Your task to perform on an android device: turn on improve location accuracy Image 0: 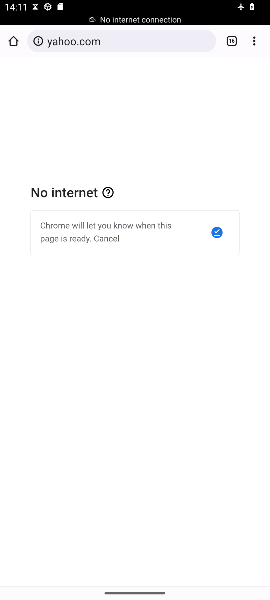
Step 0: press home button
Your task to perform on an android device: turn on improve location accuracy Image 1: 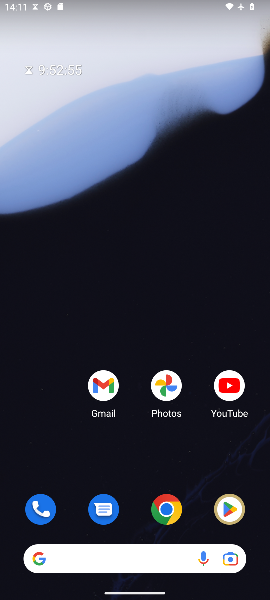
Step 1: drag from (156, 460) to (249, 1)
Your task to perform on an android device: turn on improve location accuracy Image 2: 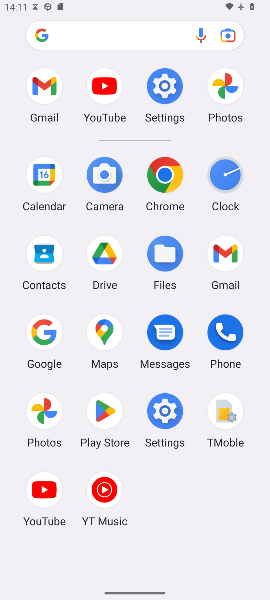
Step 2: click (168, 88)
Your task to perform on an android device: turn on improve location accuracy Image 3: 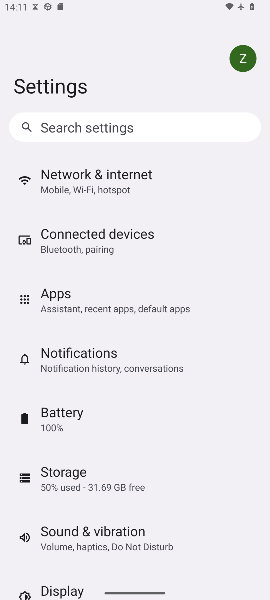
Step 3: drag from (209, 459) to (205, 154)
Your task to perform on an android device: turn on improve location accuracy Image 4: 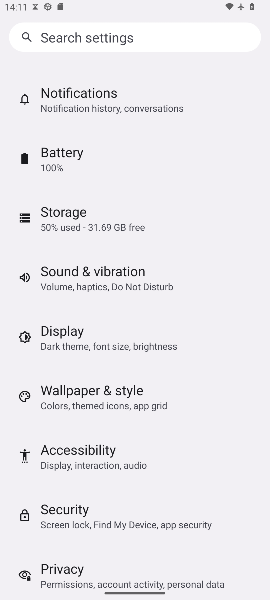
Step 4: drag from (254, 483) to (239, 136)
Your task to perform on an android device: turn on improve location accuracy Image 5: 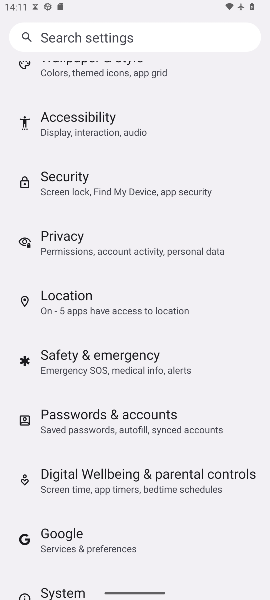
Step 5: click (62, 298)
Your task to perform on an android device: turn on improve location accuracy Image 6: 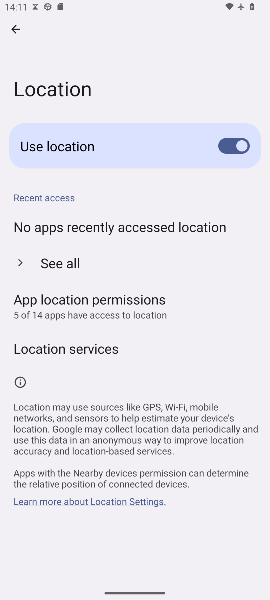
Step 6: click (66, 350)
Your task to perform on an android device: turn on improve location accuracy Image 7: 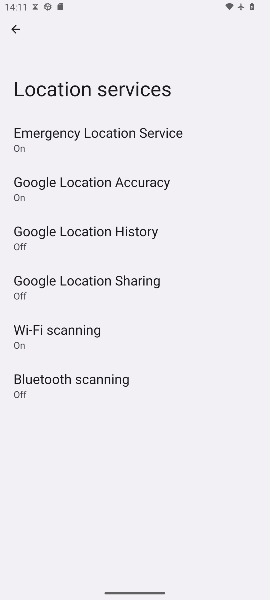
Step 7: click (110, 185)
Your task to perform on an android device: turn on improve location accuracy Image 8: 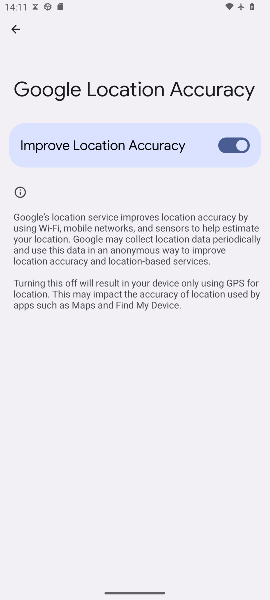
Step 8: task complete